Your task to perform on an android device: Do I have any events tomorrow? Image 0: 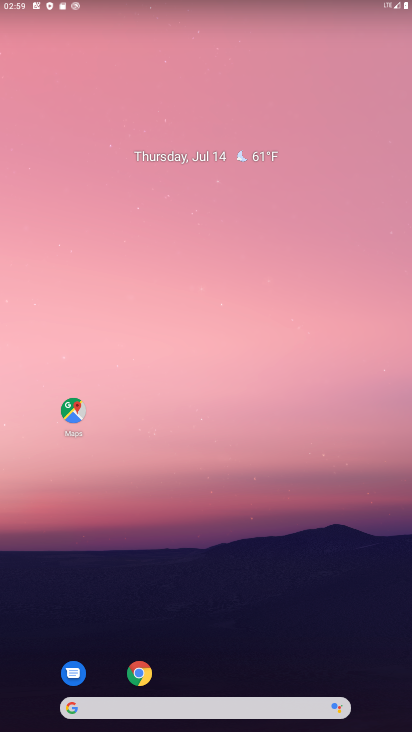
Step 0: click (155, 156)
Your task to perform on an android device: Do I have any events tomorrow? Image 1: 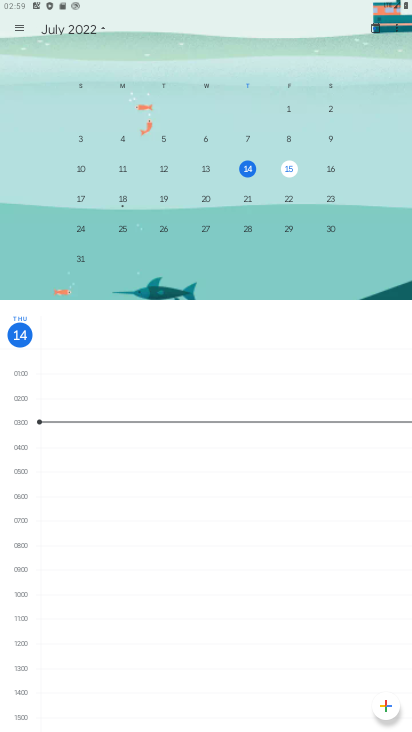
Step 1: click (17, 30)
Your task to perform on an android device: Do I have any events tomorrow? Image 2: 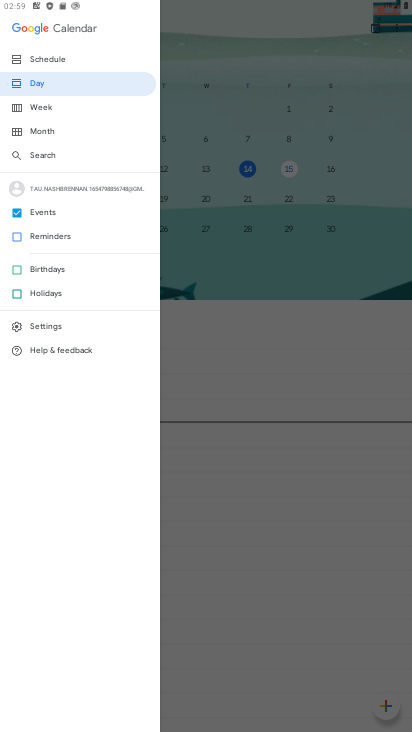
Step 2: click (292, 164)
Your task to perform on an android device: Do I have any events tomorrow? Image 3: 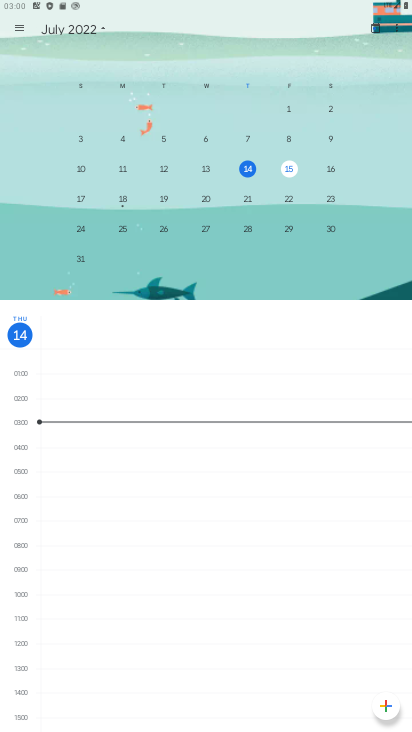
Step 3: click (294, 167)
Your task to perform on an android device: Do I have any events tomorrow? Image 4: 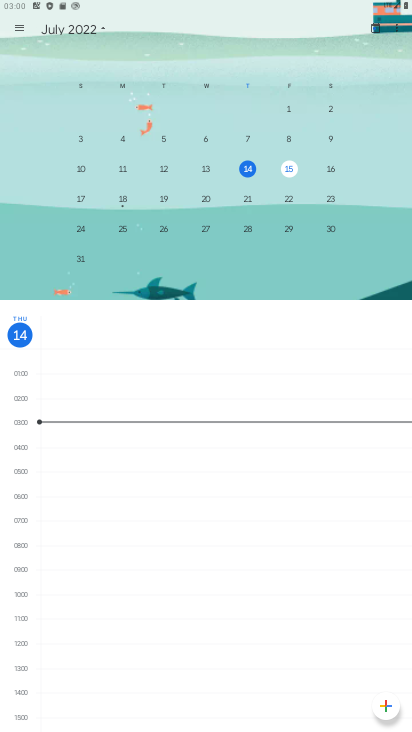
Step 4: click (294, 167)
Your task to perform on an android device: Do I have any events tomorrow? Image 5: 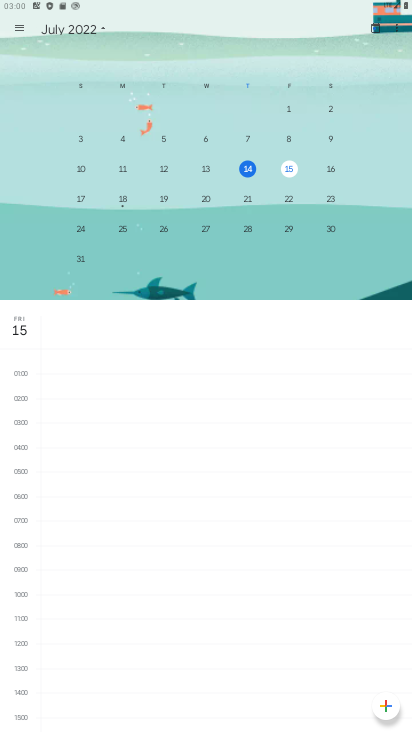
Step 5: task complete